Your task to perform on an android device: Go to Google maps Image 0: 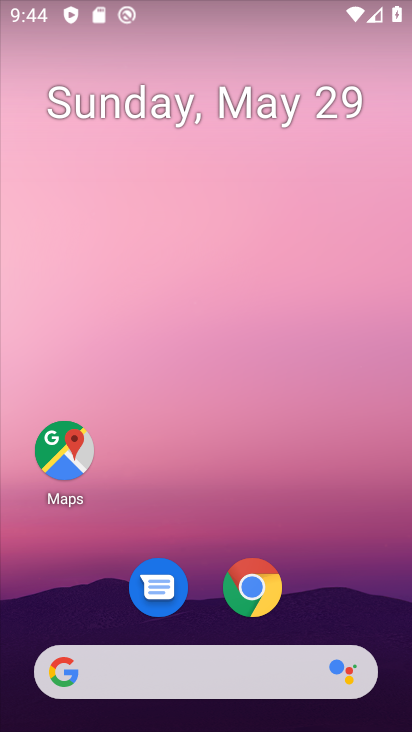
Step 0: click (53, 454)
Your task to perform on an android device: Go to Google maps Image 1: 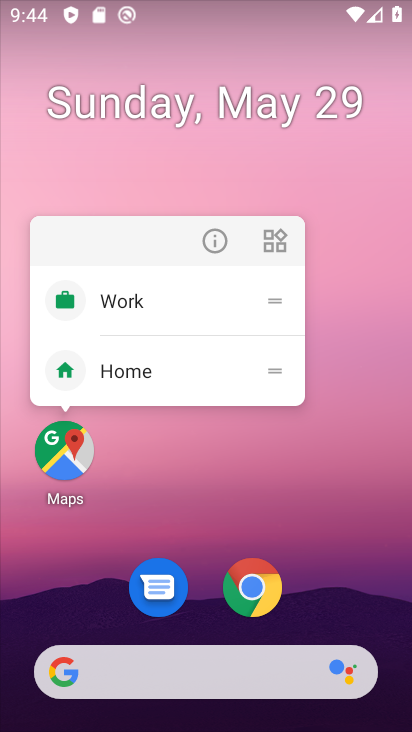
Step 1: click (53, 454)
Your task to perform on an android device: Go to Google maps Image 2: 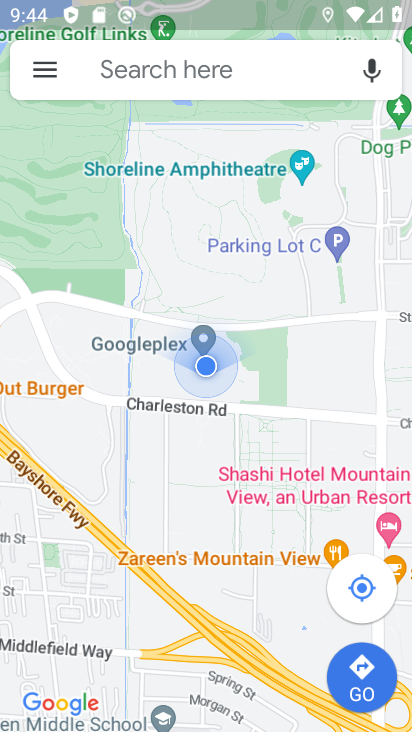
Step 2: task complete